Your task to perform on an android device: set an alarm Image 0: 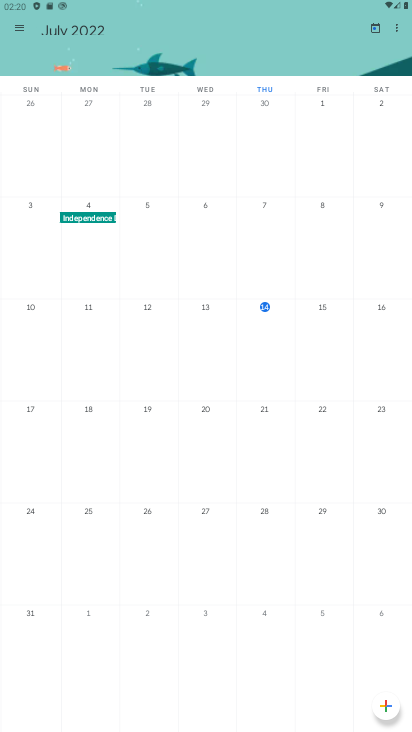
Step 0: press home button
Your task to perform on an android device: set an alarm Image 1: 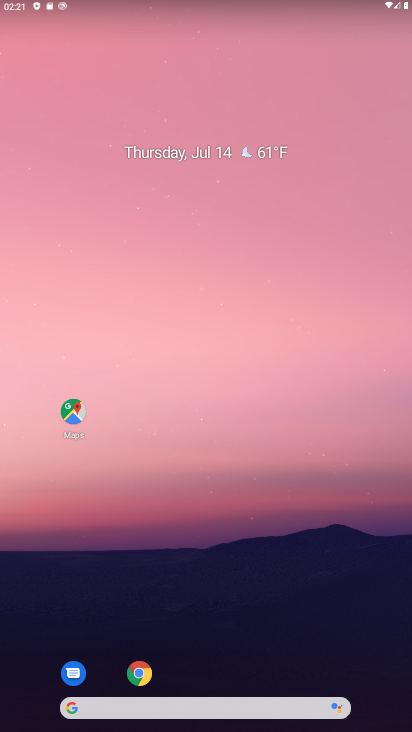
Step 1: drag from (223, 662) to (290, 107)
Your task to perform on an android device: set an alarm Image 2: 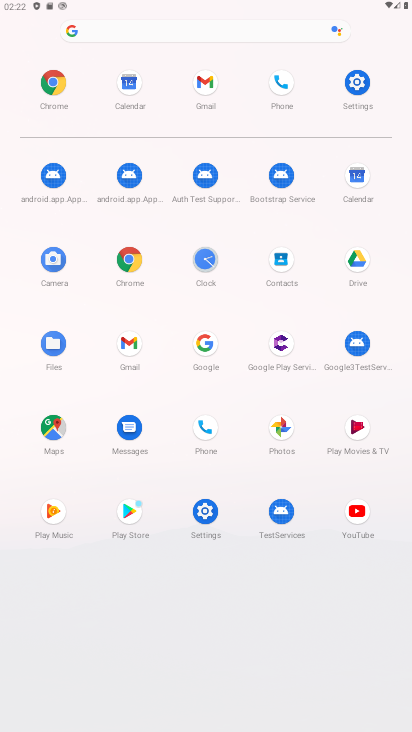
Step 2: click (209, 258)
Your task to perform on an android device: set an alarm Image 3: 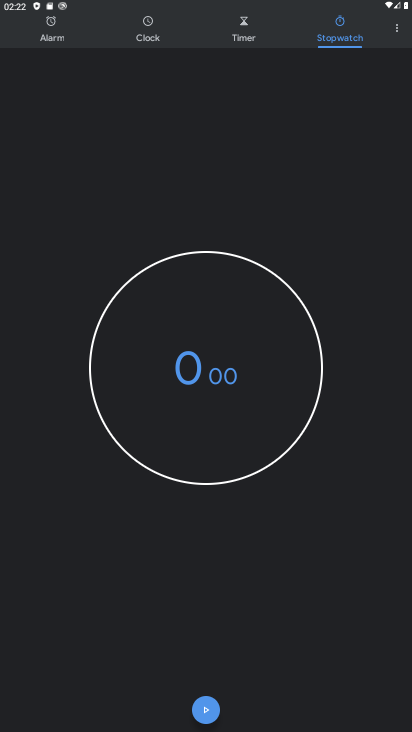
Step 3: click (51, 13)
Your task to perform on an android device: set an alarm Image 4: 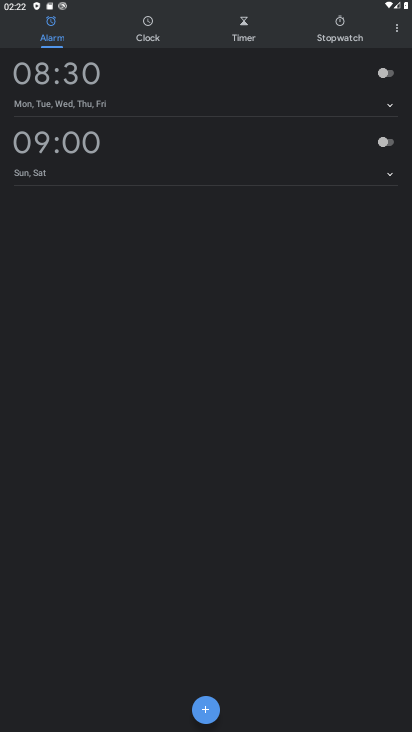
Step 4: click (380, 97)
Your task to perform on an android device: set an alarm Image 5: 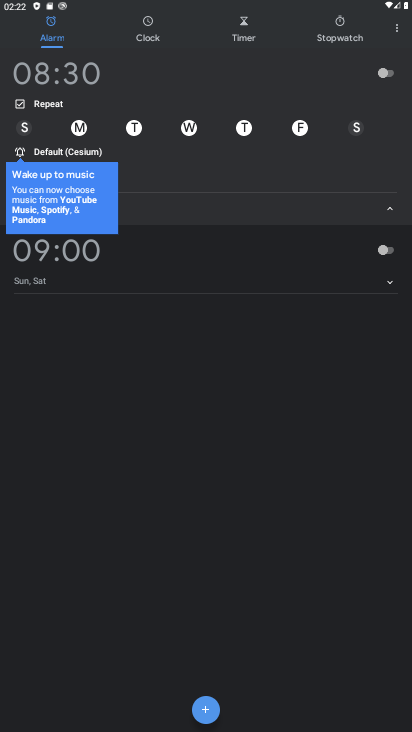
Step 5: task complete